Your task to perform on an android device: Go to Reddit.com Image 0: 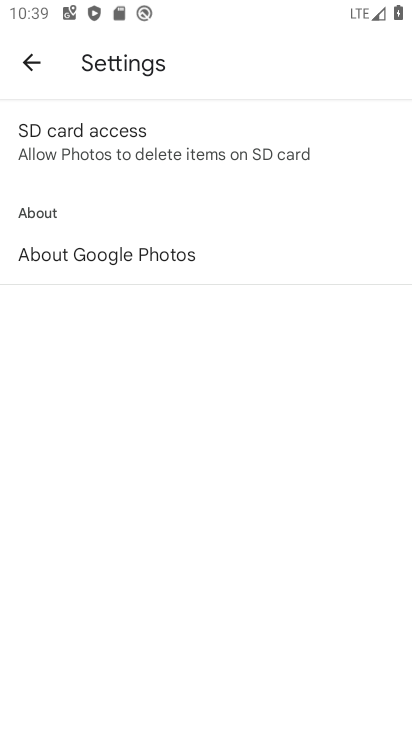
Step 0: press home button
Your task to perform on an android device: Go to Reddit.com Image 1: 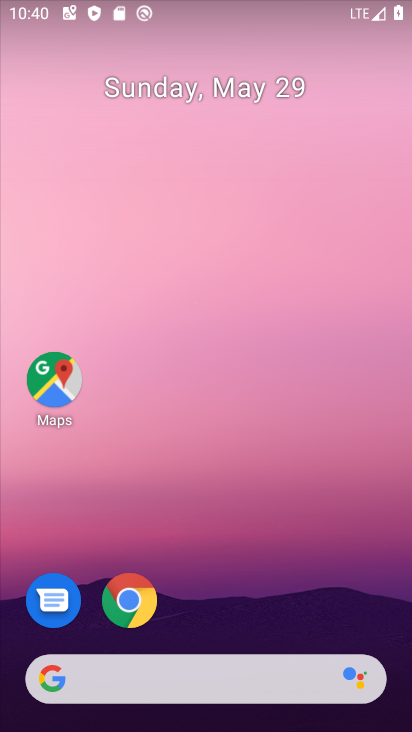
Step 1: drag from (241, 615) to (174, 25)
Your task to perform on an android device: Go to Reddit.com Image 2: 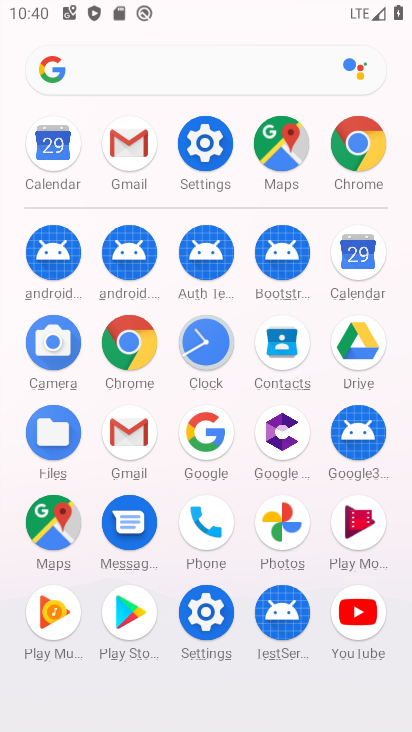
Step 2: click (102, 358)
Your task to perform on an android device: Go to Reddit.com Image 3: 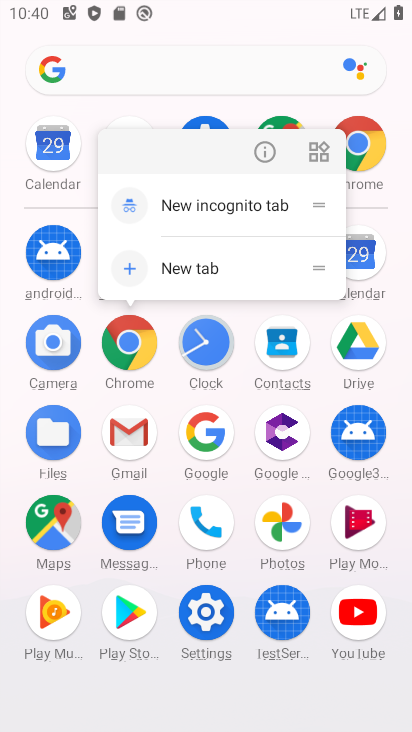
Step 3: click (102, 358)
Your task to perform on an android device: Go to Reddit.com Image 4: 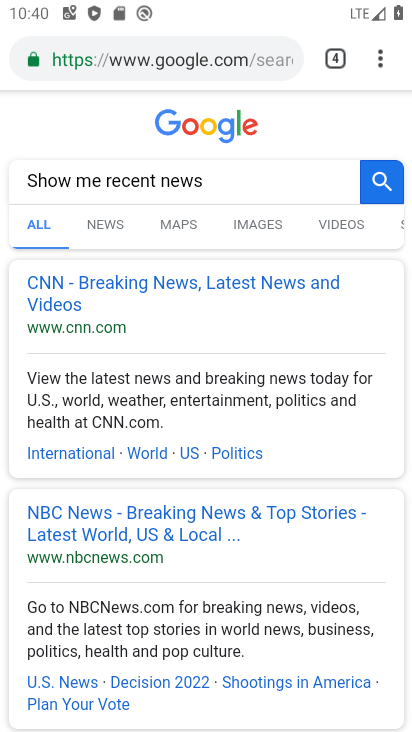
Step 4: click (396, 59)
Your task to perform on an android device: Go to Reddit.com Image 5: 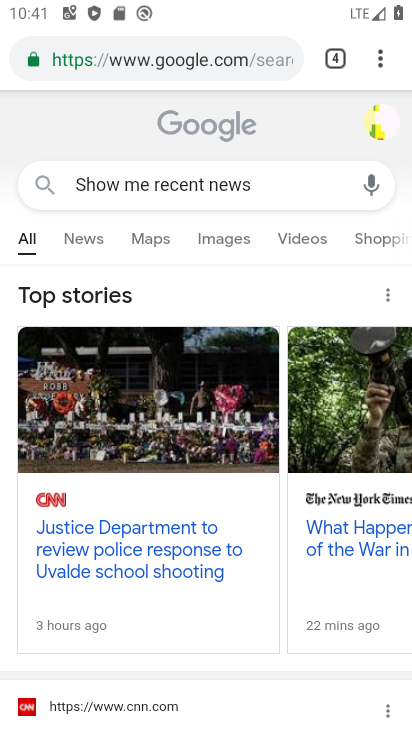
Step 5: click (285, 69)
Your task to perform on an android device: Go to Reddit.com Image 6: 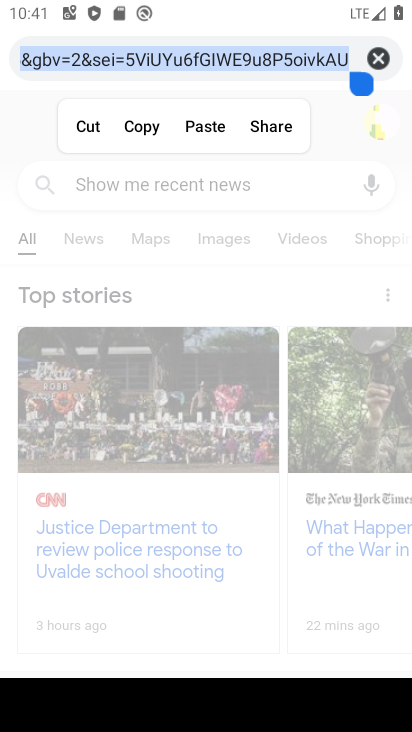
Step 6: click (363, 47)
Your task to perform on an android device: Go to Reddit.com Image 7: 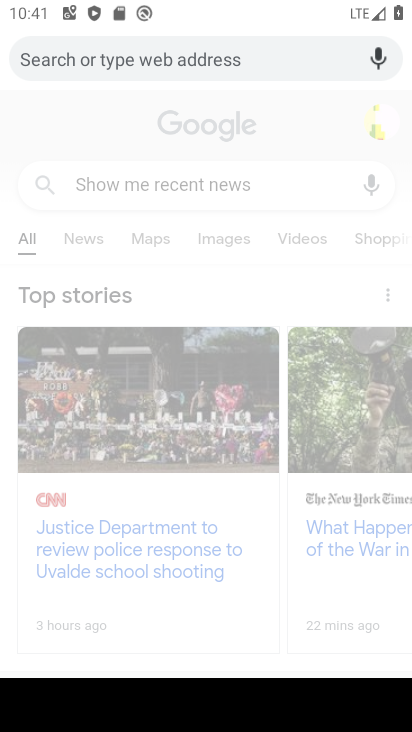
Step 7: type "Reddit.com"
Your task to perform on an android device: Go to Reddit.com Image 8: 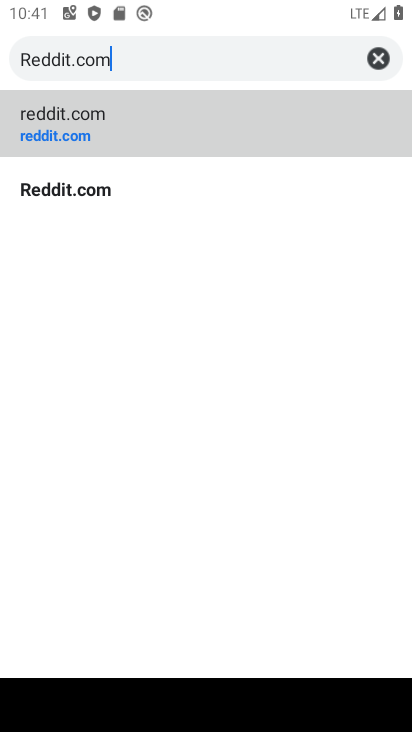
Step 8: click (398, 150)
Your task to perform on an android device: Go to Reddit.com Image 9: 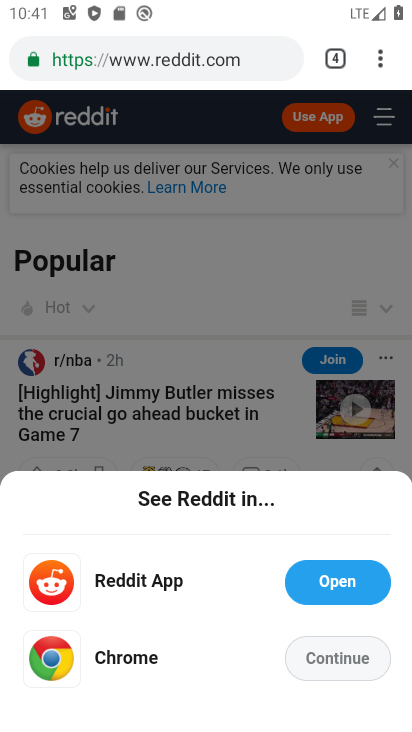
Step 9: task complete